Your task to perform on an android device: set the stopwatch Image 0: 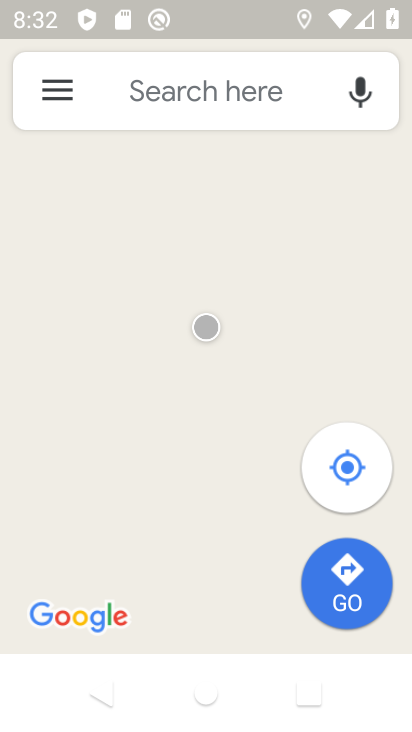
Step 0: press home button
Your task to perform on an android device: set the stopwatch Image 1: 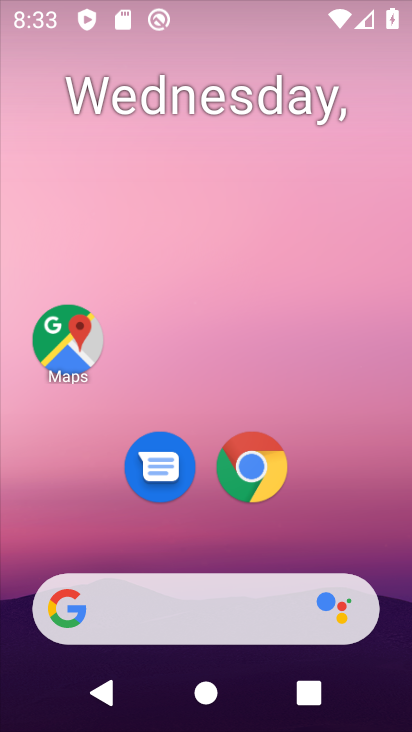
Step 1: click (347, 185)
Your task to perform on an android device: set the stopwatch Image 2: 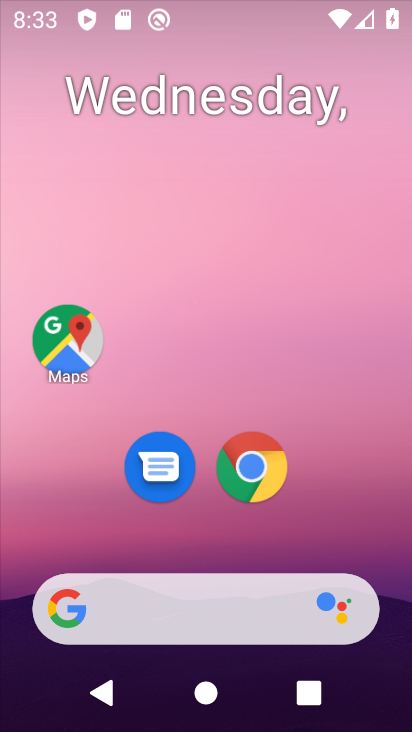
Step 2: drag from (384, 561) to (411, 181)
Your task to perform on an android device: set the stopwatch Image 3: 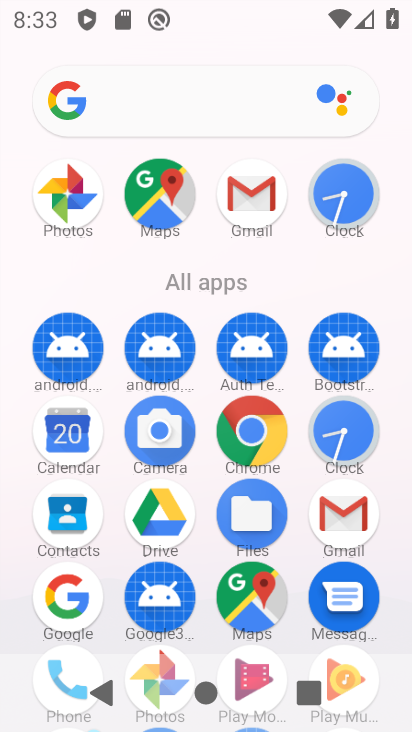
Step 3: click (344, 199)
Your task to perform on an android device: set the stopwatch Image 4: 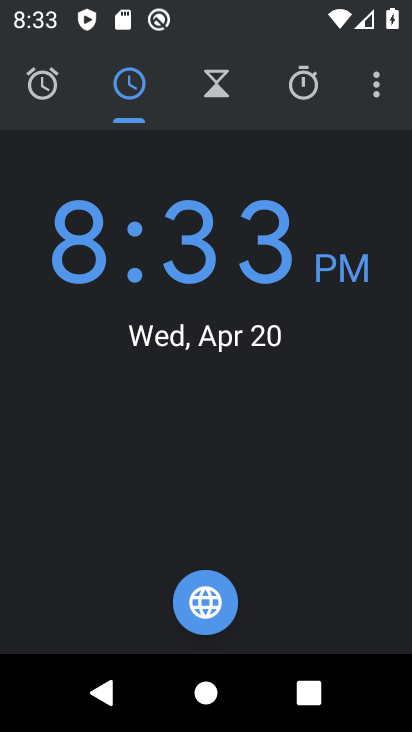
Step 4: click (305, 85)
Your task to perform on an android device: set the stopwatch Image 5: 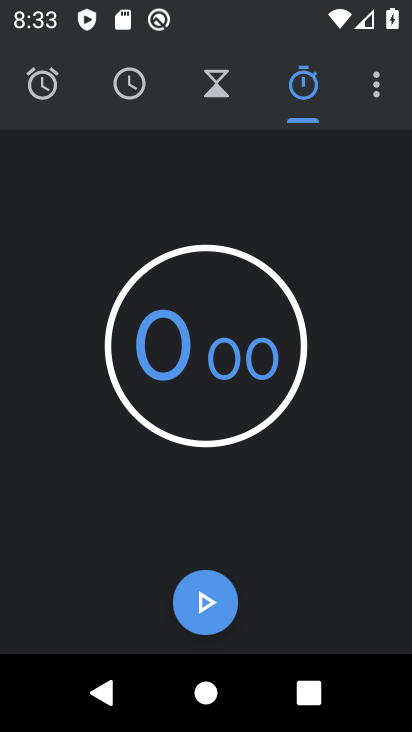
Step 5: click (207, 609)
Your task to perform on an android device: set the stopwatch Image 6: 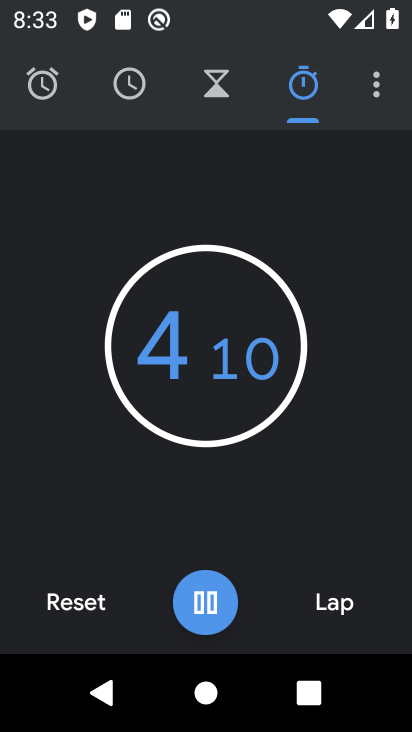
Step 6: task complete